Your task to perform on an android device: Show me popular games on the Play Store Image 0: 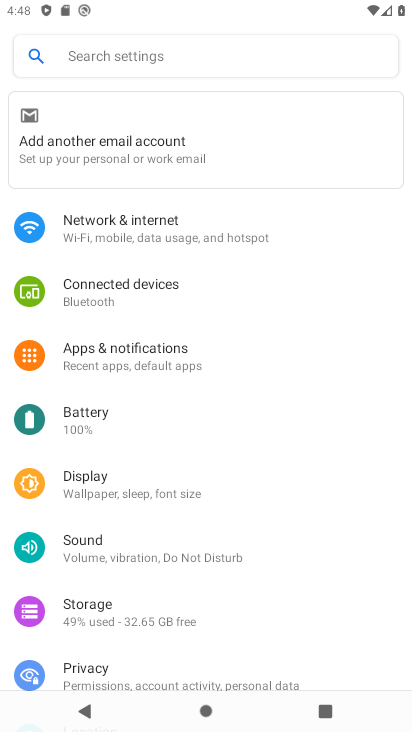
Step 0: press home button
Your task to perform on an android device: Show me popular games on the Play Store Image 1: 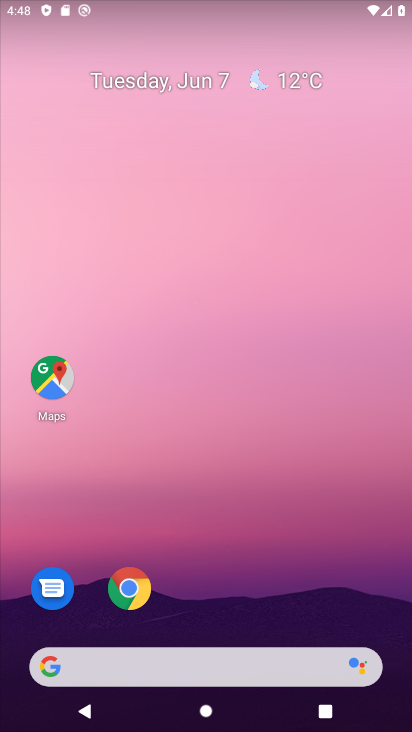
Step 1: drag from (196, 602) to (231, 99)
Your task to perform on an android device: Show me popular games on the Play Store Image 2: 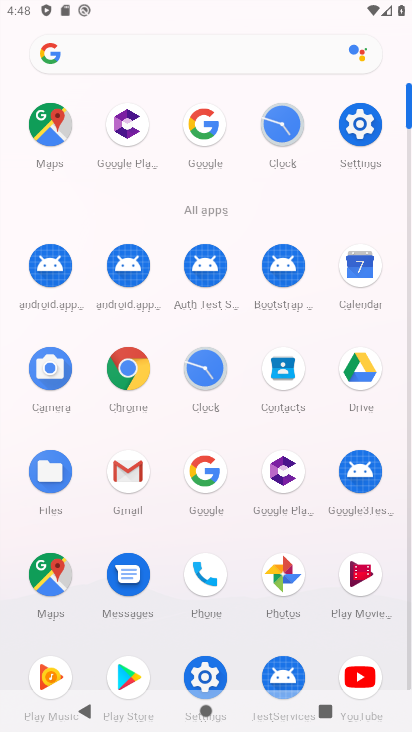
Step 2: click (123, 671)
Your task to perform on an android device: Show me popular games on the Play Store Image 3: 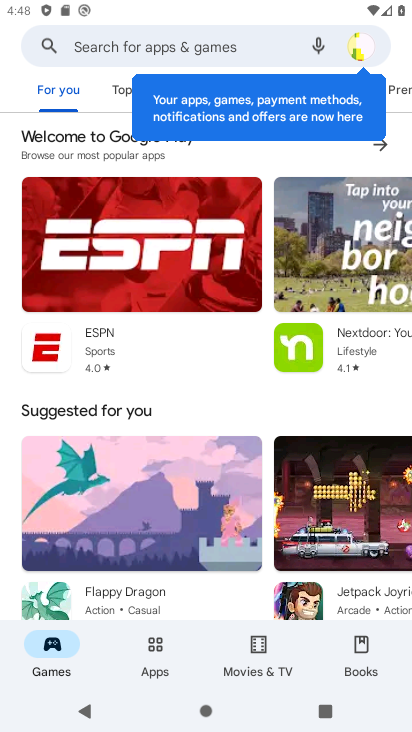
Step 3: task complete